Your task to perform on an android device: Empty the shopping cart on newegg. Search for energizer triple a on newegg, select the first entry, and add it to the cart. Image 0: 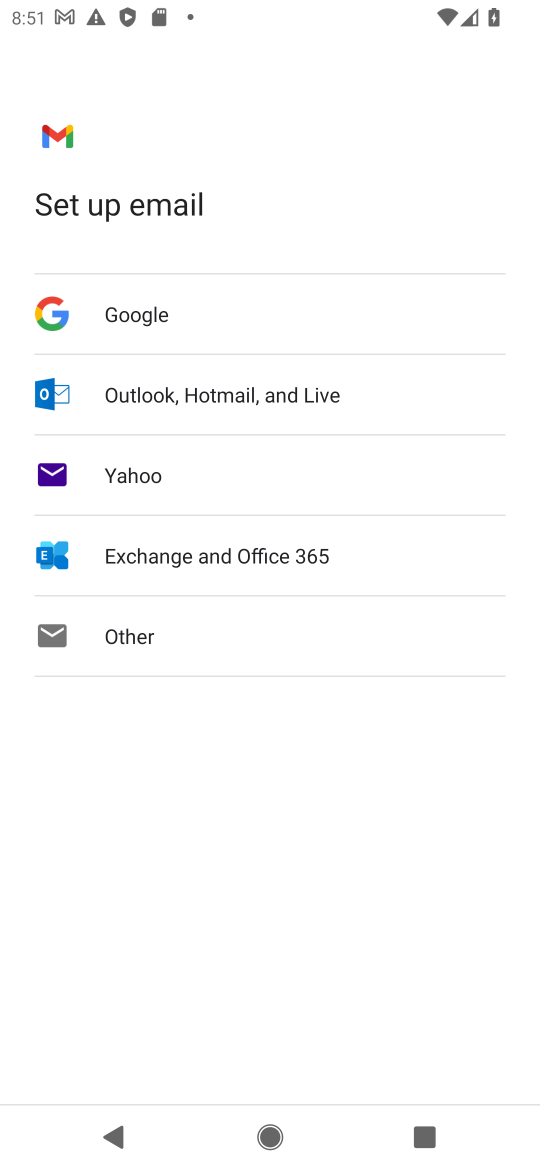
Step 0: press home button
Your task to perform on an android device: Empty the shopping cart on newegg. Search for energizer triple a on newegg, select the first entry, and add it to the cart. Image 1: 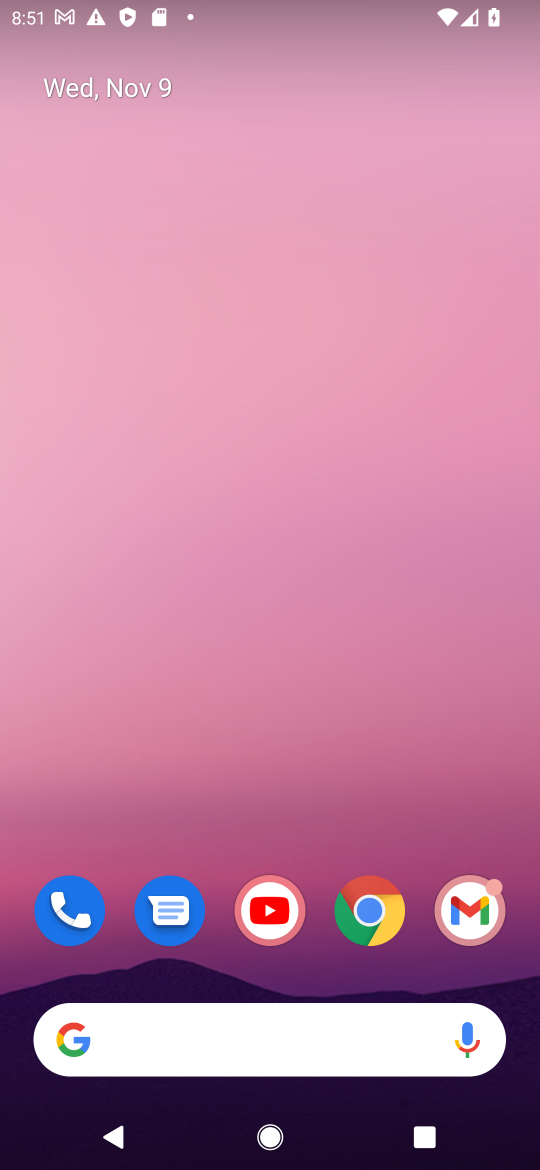
Step 1: click (373, 899)
Your task to perform on an android device: Empty the shopping cart on newegg. Search for energizer triple a on newegg, select the first entry, and add it to the cart. Image 2: 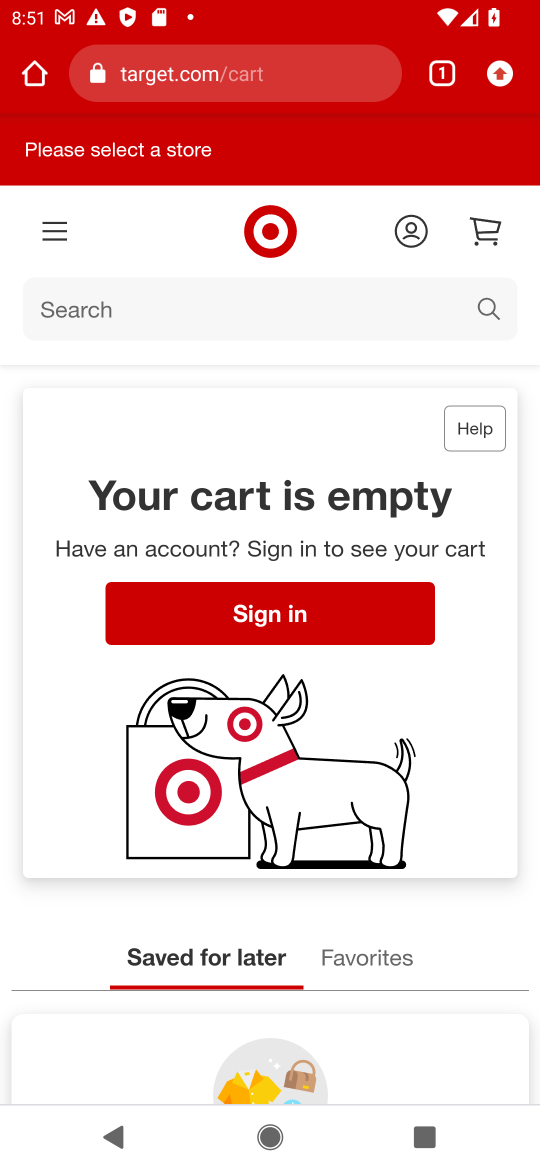
Step 2: click (178, 70)
Your task to perform on an android device: Empty the shopping cart on newegg. Search for energizer triple a on newegg, select the first entry, and add it to the cart. Image 3: 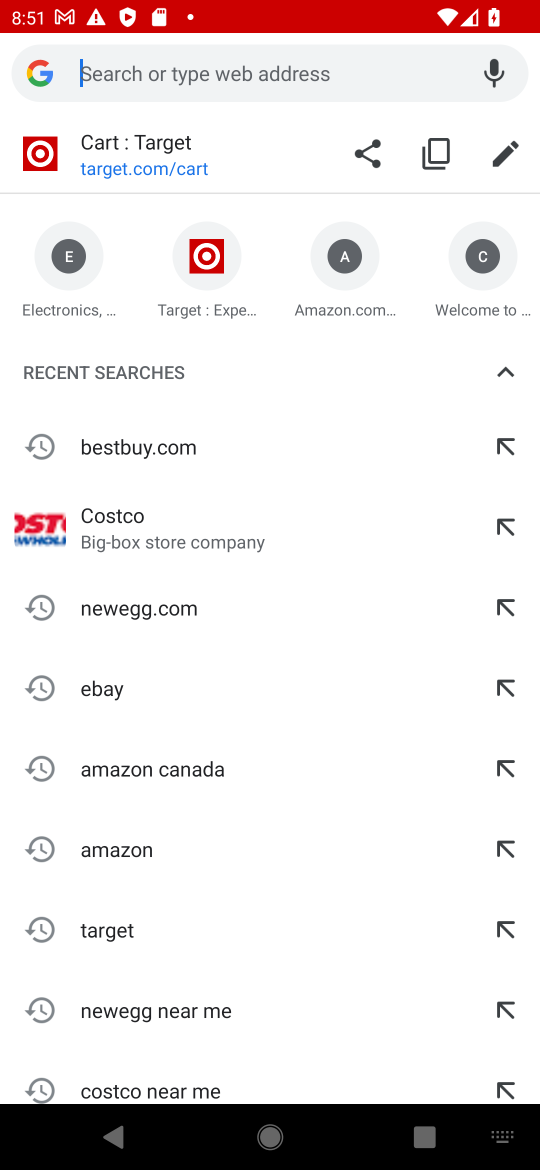
Step 3: click (127, 627)
Your task to perform on an android device: Empty the shopping cart on newegg. Search for energizer triple a on newegg, select the first entry, and add it to the cart. Image 4: 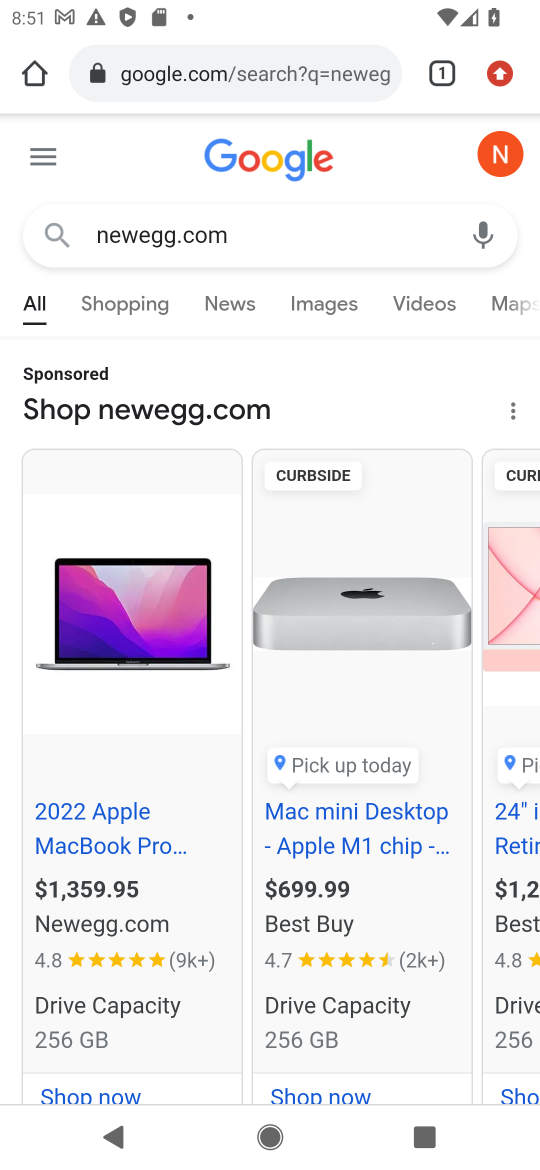
Step 4: drag from (129, 643) to (134, 201)
Your task to perform on an android device: Empty the shopping cart on newegg. Search for energizer triple a on newegg, select the first entry, and add it to the cart. Image 5: 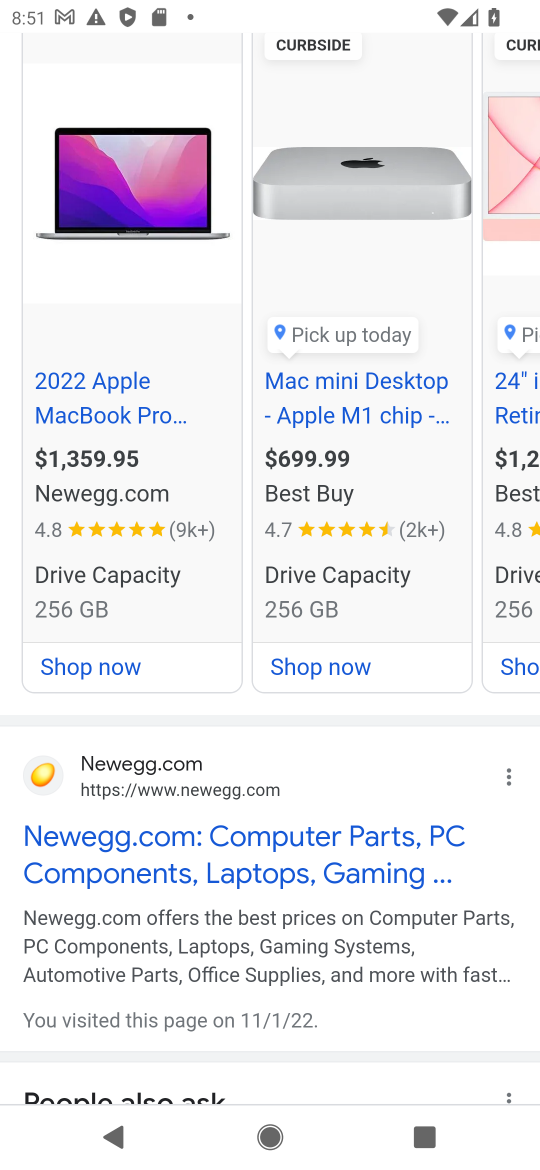
Step 5: click (108, 841)
Your task to perform on an android device: Empty the shopping cart on newegg. Search for energizer triple a on newegg, select the first entry, and add it to the cart. Image 6: 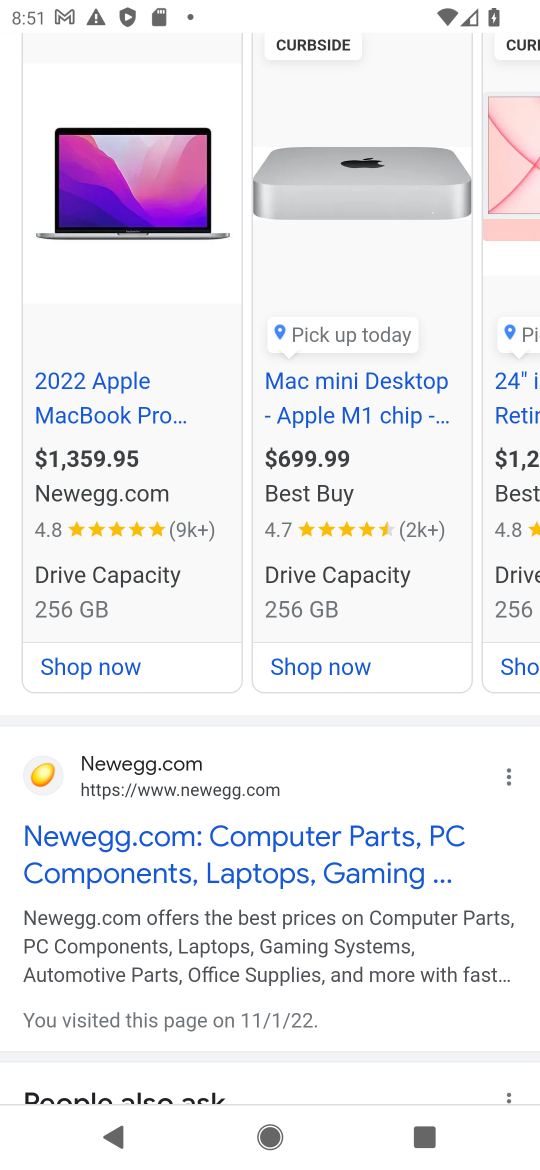
Step 6: click (140, 799)
Your task to perform on an android device: Empty the shopping cart on newegg. Search for energizer triple a on newegg, select the first entry, and add it to the cart. Image 7: 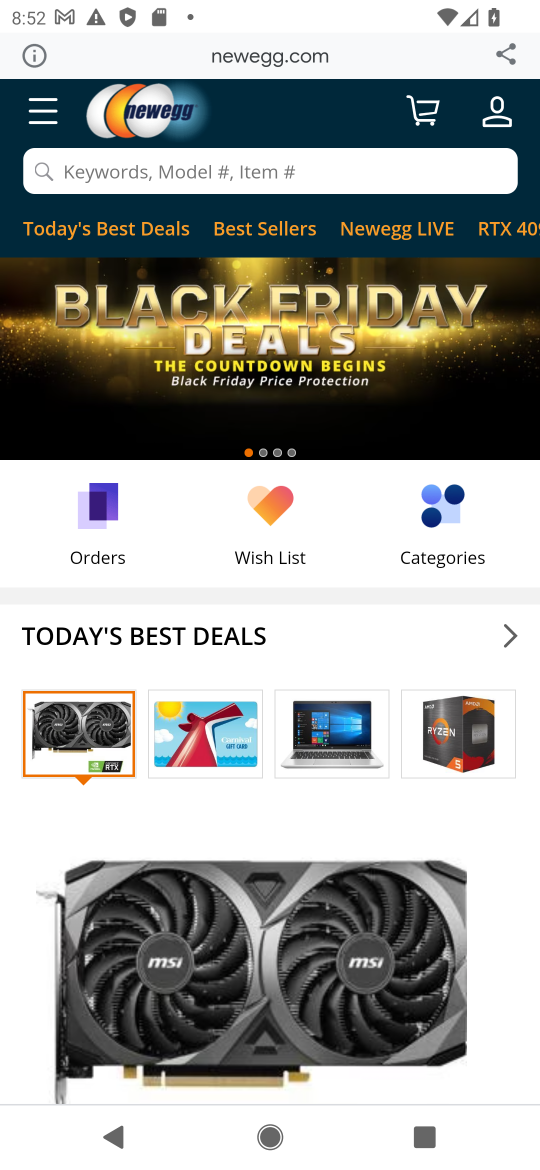
Step 7: click (421, 114)
Your task to perform on an android device: Empty the shopping cart on newegg. Search for energizer triple a on newegg, select the first entry, and add it to the cart. Image 8: 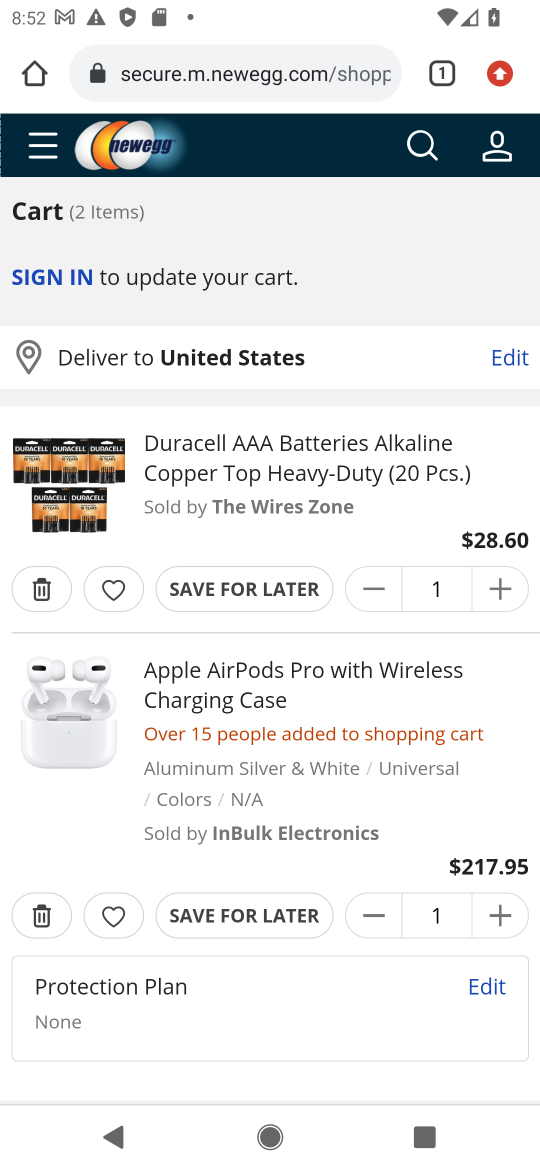
Step 8: click (38, 586)
Your task to perform on an android device: Empty the shopping cart on newegg. Search for energizer triple a on newegg, select the first entry, and add it to the cart. Image 9: 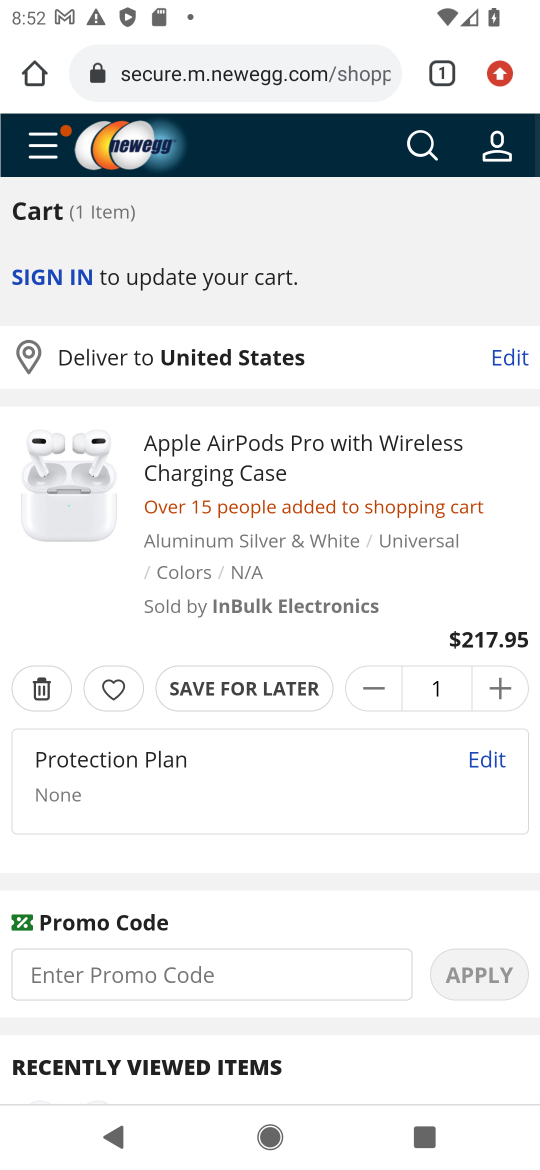
Step 9: click (42, 688)
Your task to perform on an android device: Empty the shopping cart on newegg. Search for energizer triple a on newegg, select the first entry, and add it to the cart. Image 10: 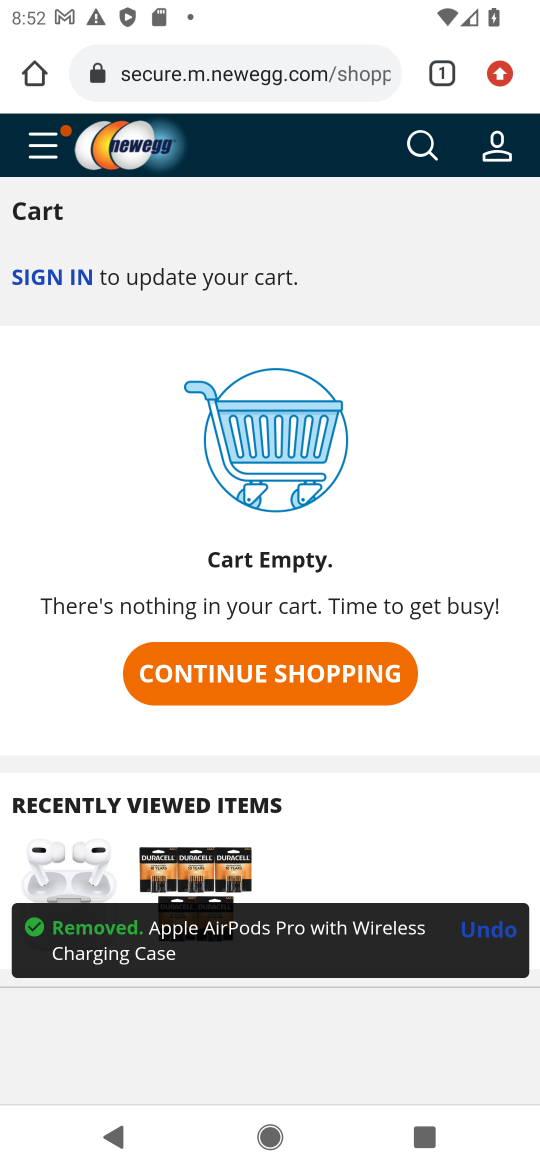
Step 10: click (294, 682)
Your task to perform on an android device: Empty the shopping cart on newegg. Search for energizer triple a on newegg, select the first entry, and add it to the cart. Image 11: 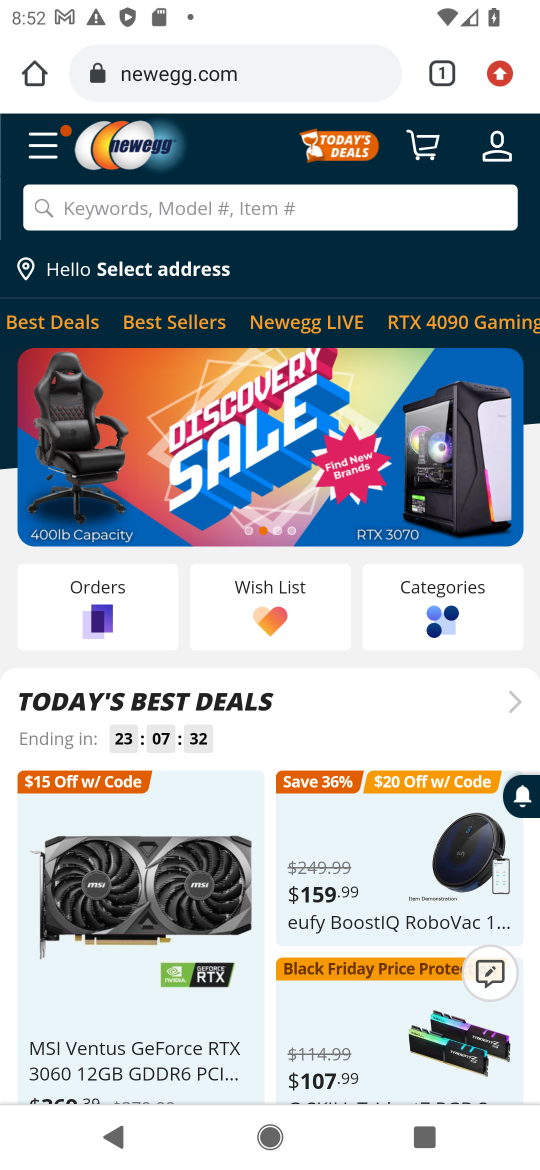
Step 11: click (190, 213)
Your task to perform on an android device: Empty the shopping cart on newegg. Search for energizer triple a on newegg, select the first entry, and add it to the cart. Image 12: 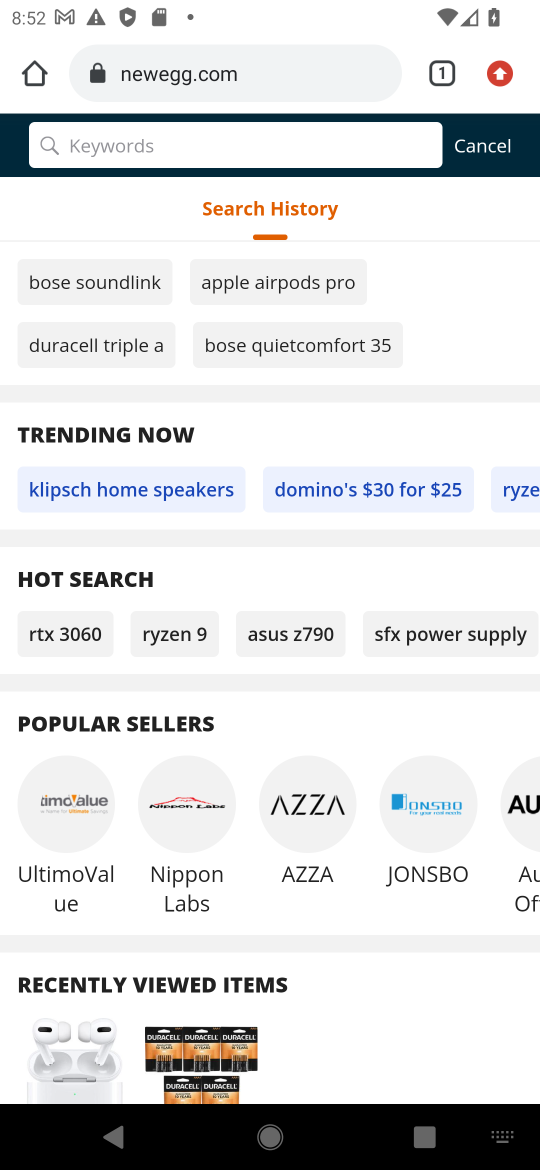
Step 12: type "energizer triple a"
Your task to perform on an android device: Empty the shopping cart on newegg. Search for energizer triple a on newegg, select the first entry, and add it to the cart. Image 13: 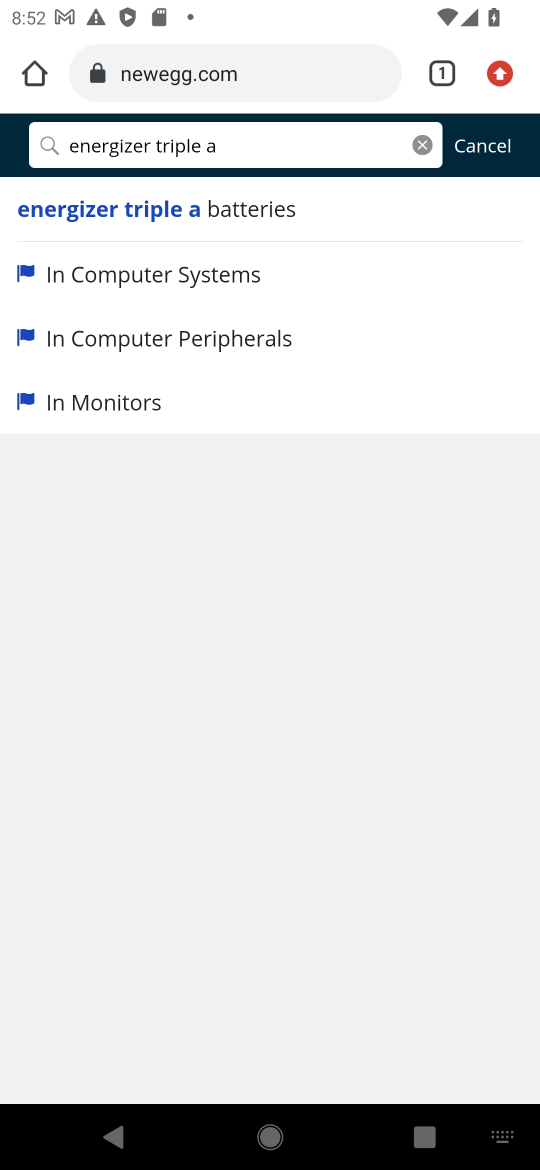
Step 13: click (63, 210)
Your task to perform on an android device: Empty the shopping cart on newegg. Search for energizer triple a on newegg, select the first entry, and add it to the cart. Image 14: 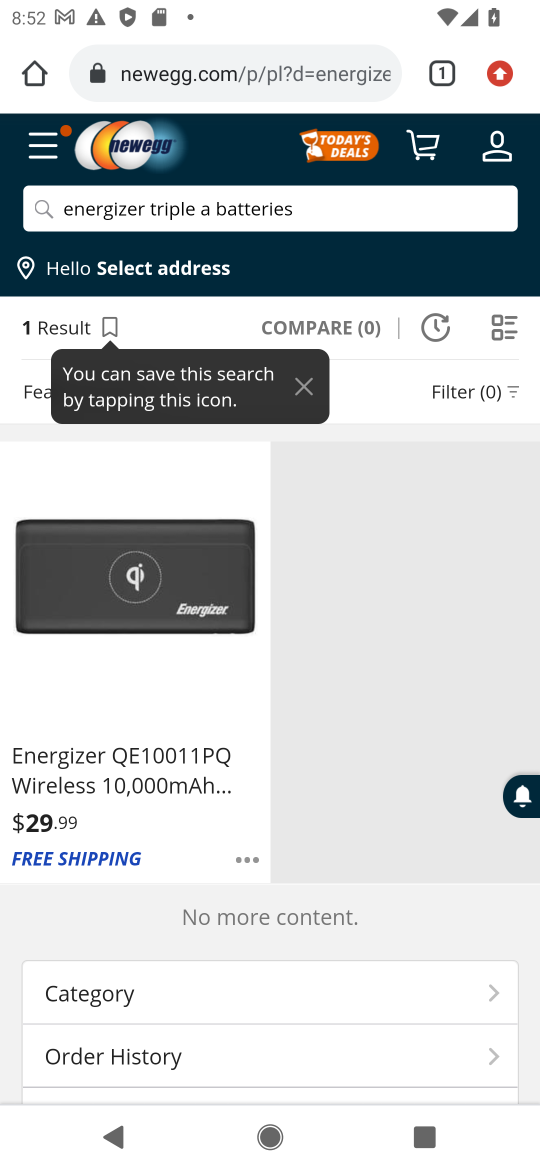
Step 14: task complete